Your task to perform on an android device: Search for razer huntsman on newegg, select the first entry, add it to the cart, then select checkout. Image 0: 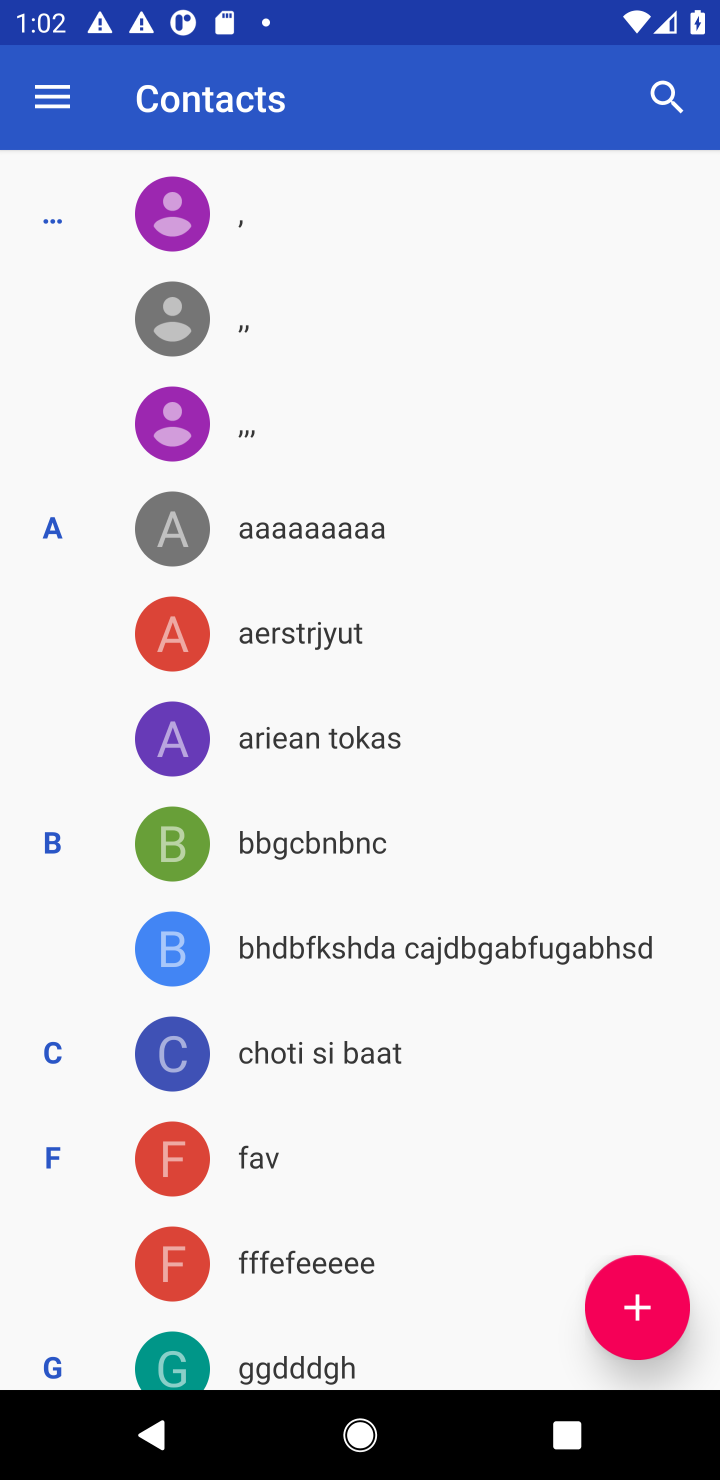
Step 0: press home button
Your task to perform on an android device: Search for razer huntsman on newegg, select the first entry, add it to the cart, then select checkout. Image 1: 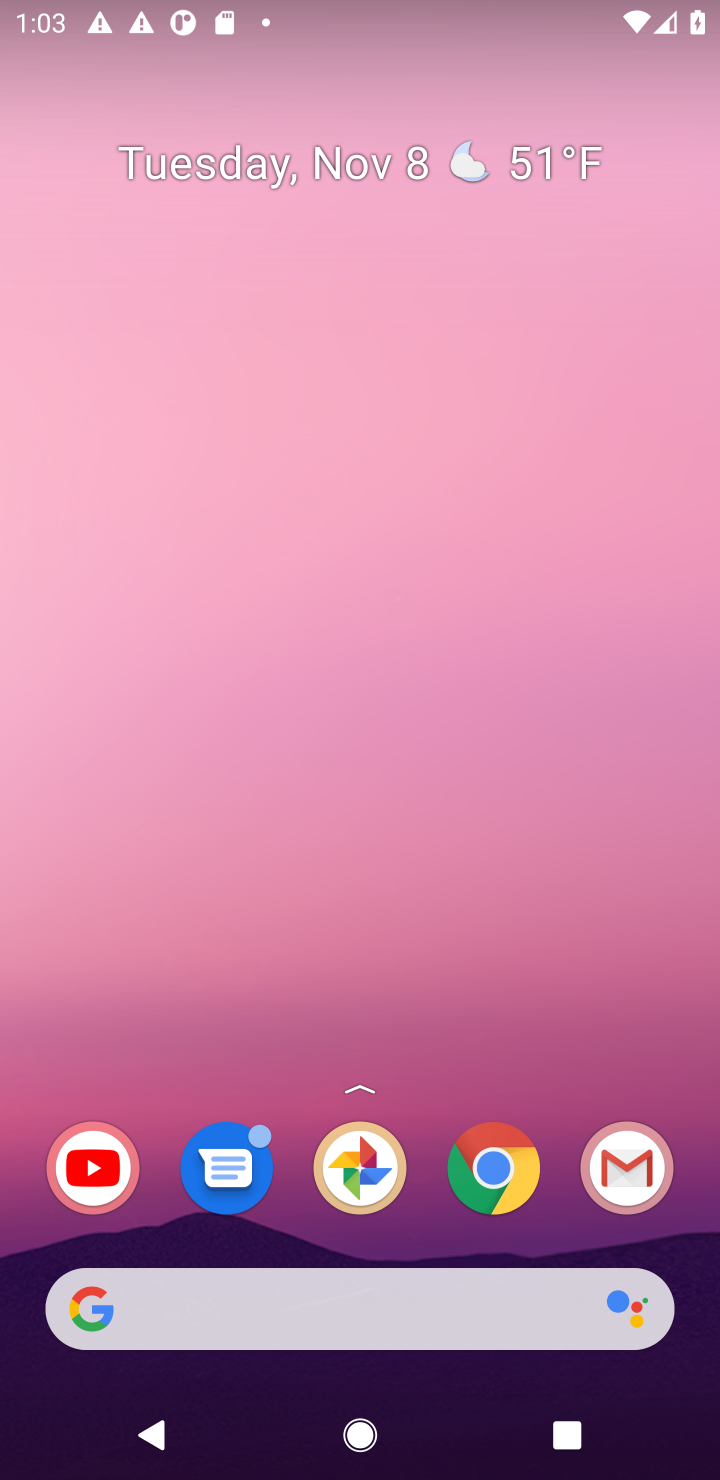
Step 1: drag from (407, 784) to (385, 148)
Your task to perform on an android device: Search for razer huntsman on newegg, select the first entry, add it to the cart, then select checkout. Image 2: 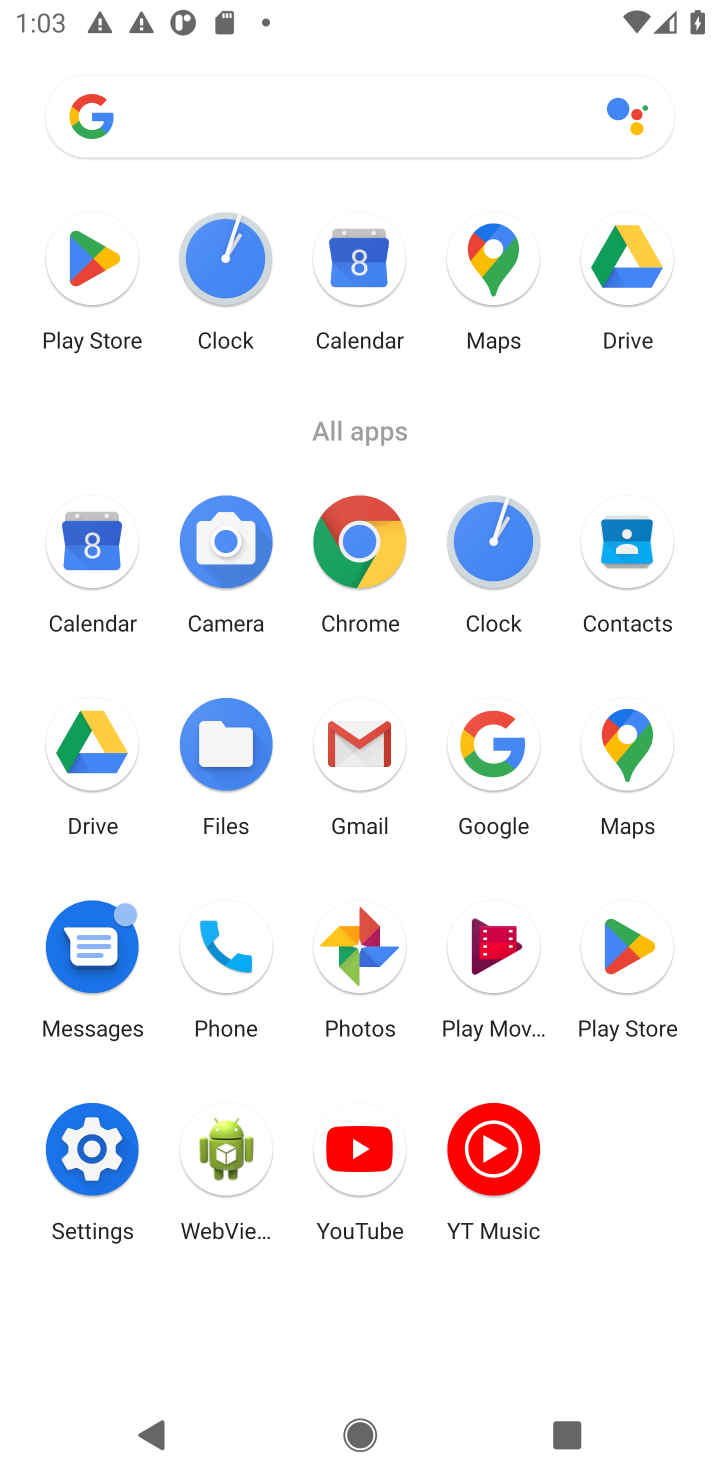
Step 2: click (375, 542)
Your task to perform on an android device: Search for razer huntsman on newegg, select the first entry, add it to the cart, then select checkout. Image 3: 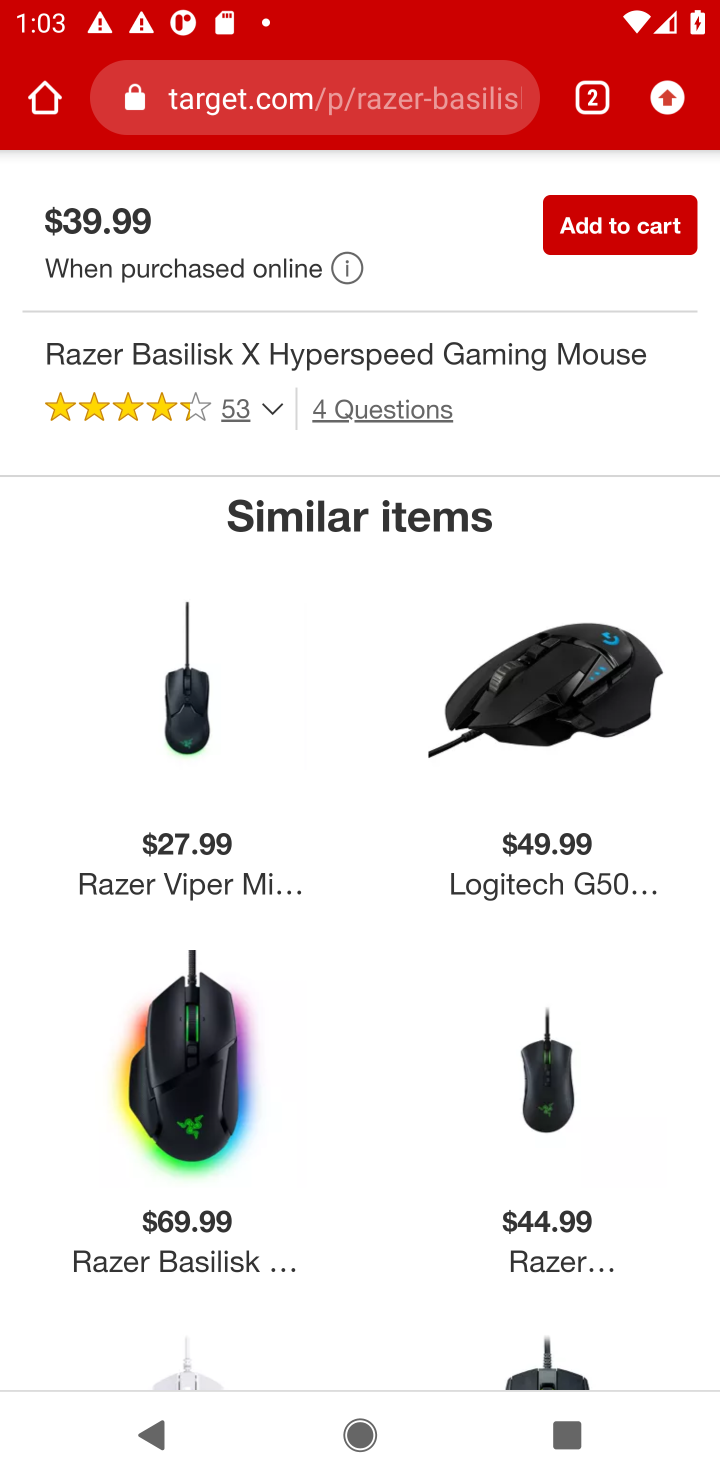
Step 3: click (310, 118)
Your task to perform on an android device: Search for razer huntsman on newegg, select the first entry, add it to the cart, then select checkout. Image 4: 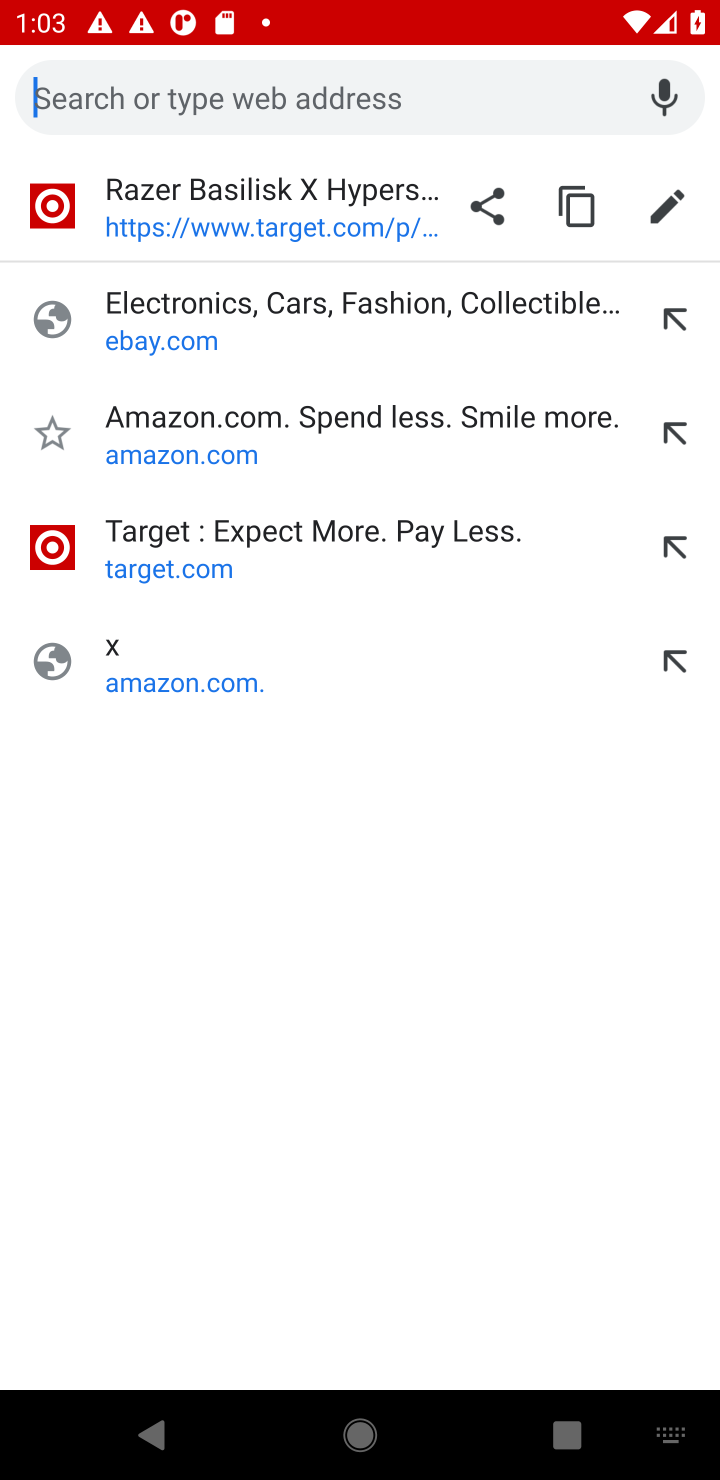
Step 4: type "newegg"
Your task to perform on an android device: Search for razer huntsman on newegg, select the first entry, add it to the cart, then select checkout. Image 5: 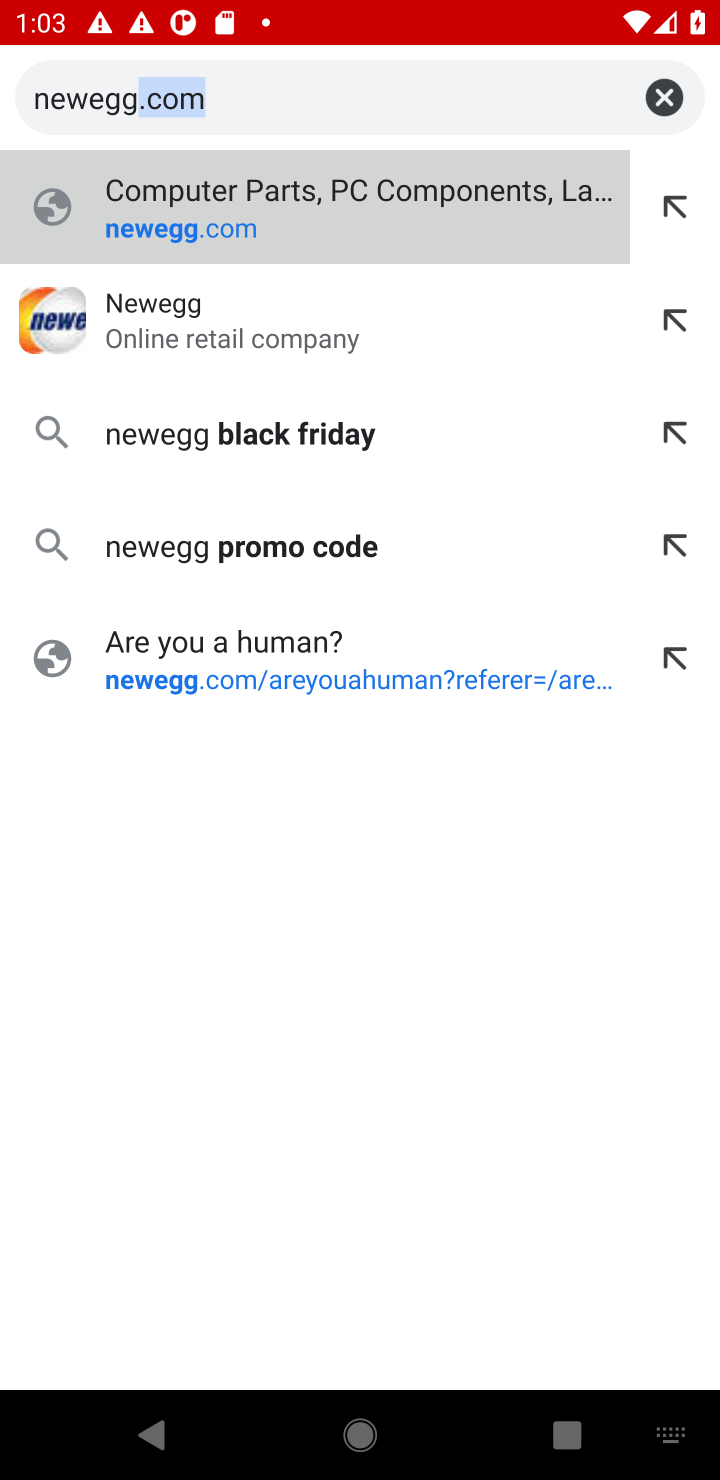
Step 5: press enter
Your task to perform on an android device: Search for razer huntsman on newegg, select the first entry, add it to the cart, then select checkout. Image 6: 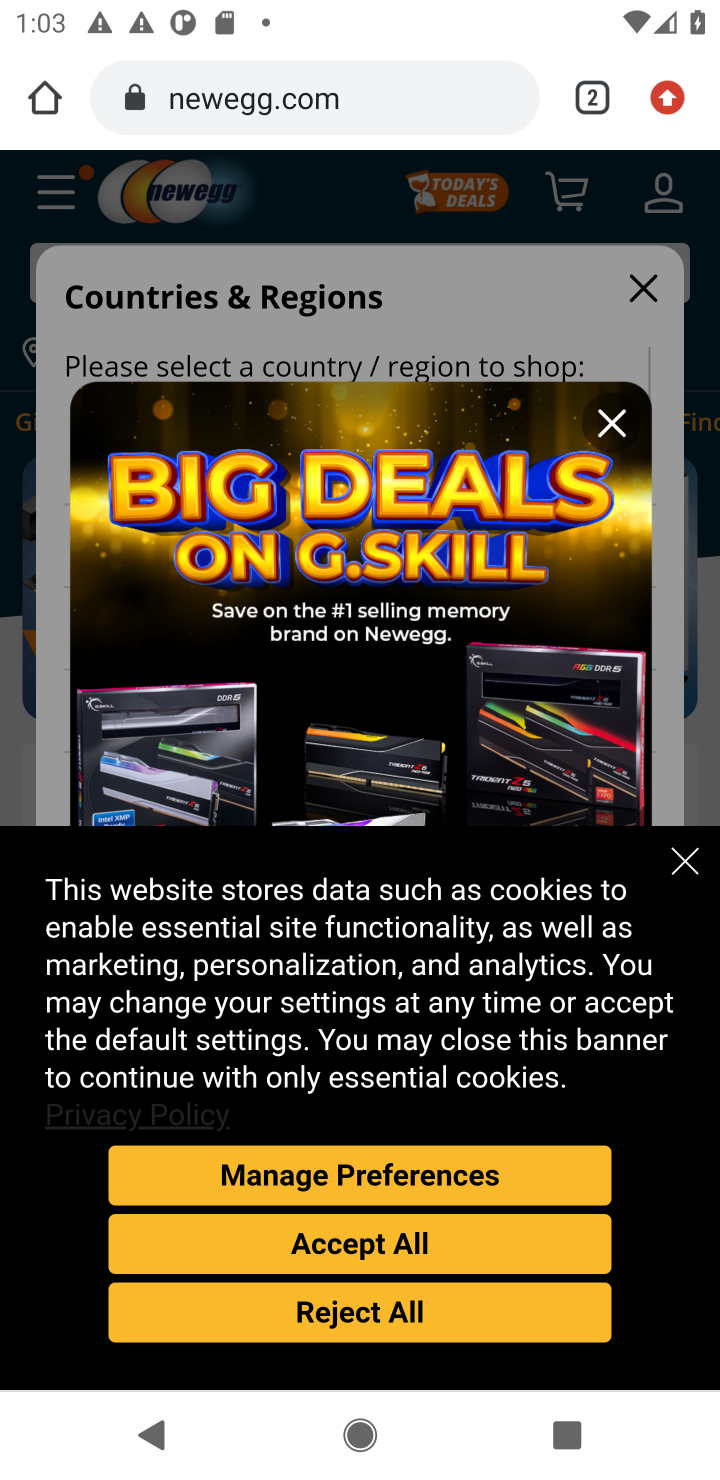
Step 6: click (693, 871)
Your task to perform on an android device: Search for razer huntsman on newegg, select the first entry, add it to the cart, then select checkout. Image 7: 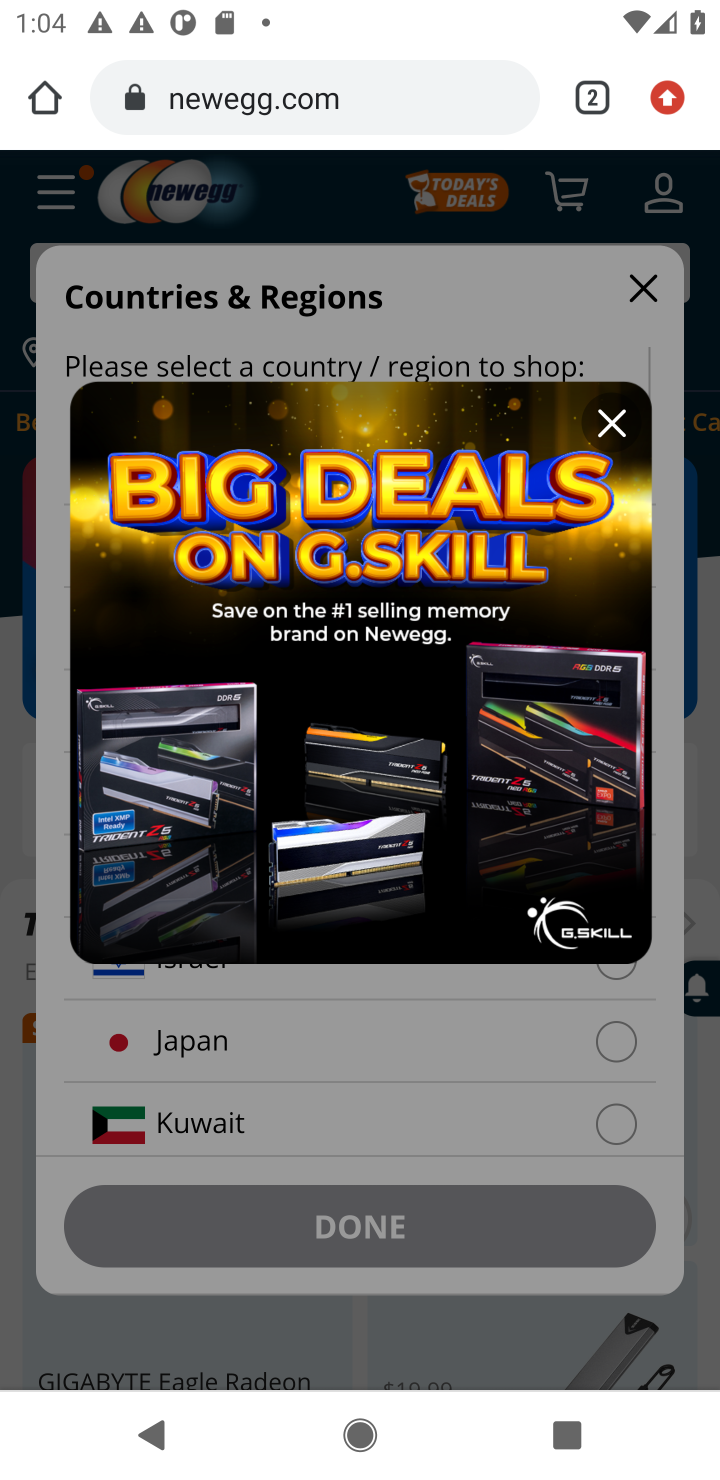
Step 7: click (589, 439)
Your task to perform on an android device: Search for razer huntsman on newegg, select the first entry, add it to the cart, then select checkout. Image 8: 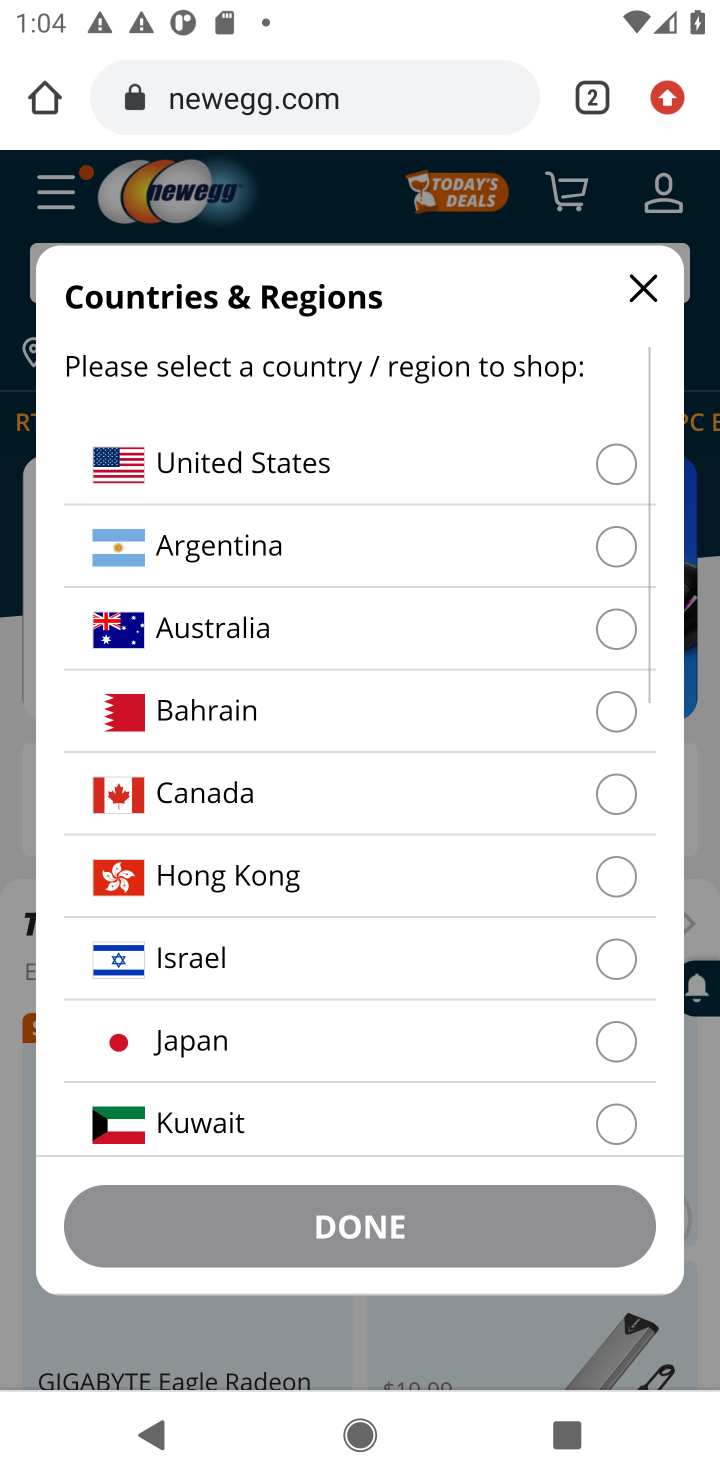
Step 8: click (408, 463)
Your task to perform on an android device: Search for razer huntsman on newegg, select the first entry, add it to the cart, then select checkout. Image 9: 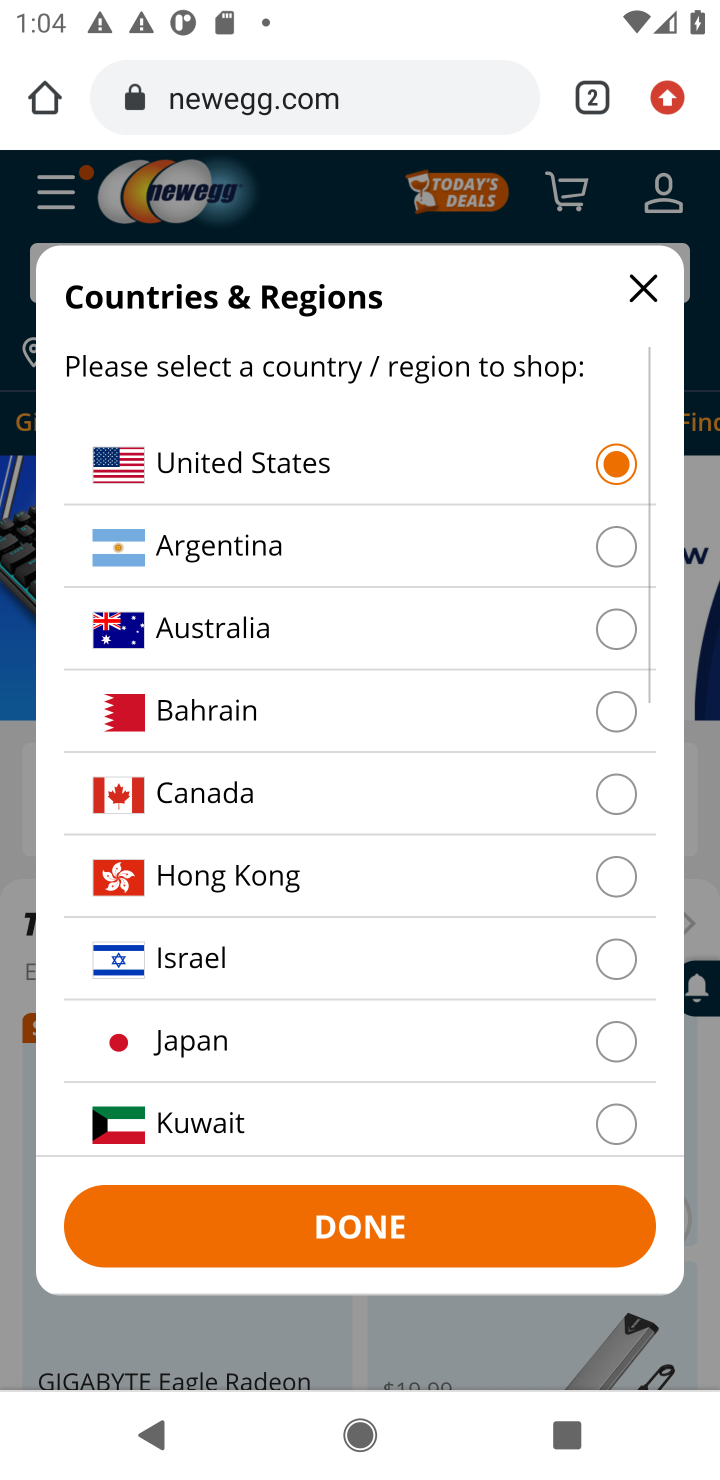
Step 9: click (377, 1230)
Your task to perform on an android device: Search for razer huntsman on newegg, select the first entry, add it to the cart, then select checkout. Image 10: 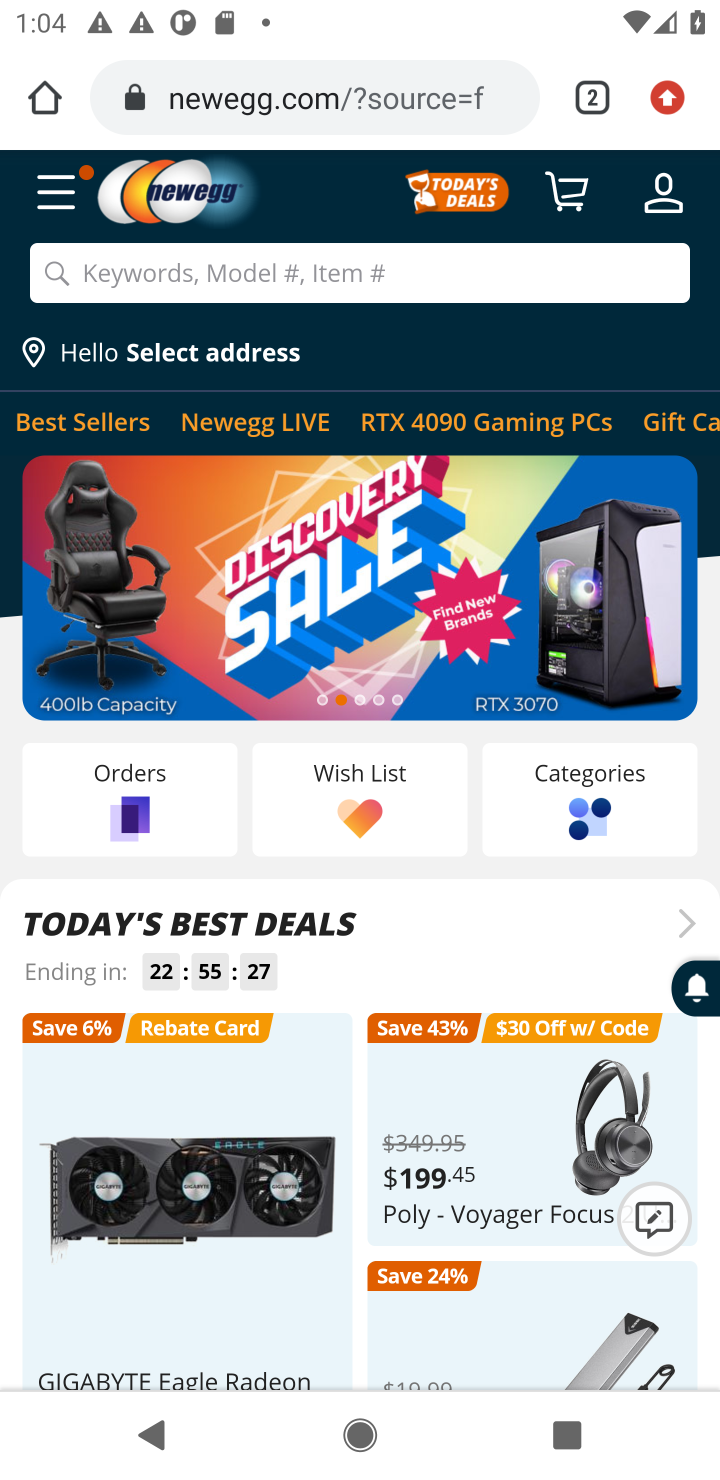
Step 10: click (341, 255)
Your task to perform on an android device: Search for razer huntsman on newegg, select the first entry, add it to the cart, then select checkout. Image 11: 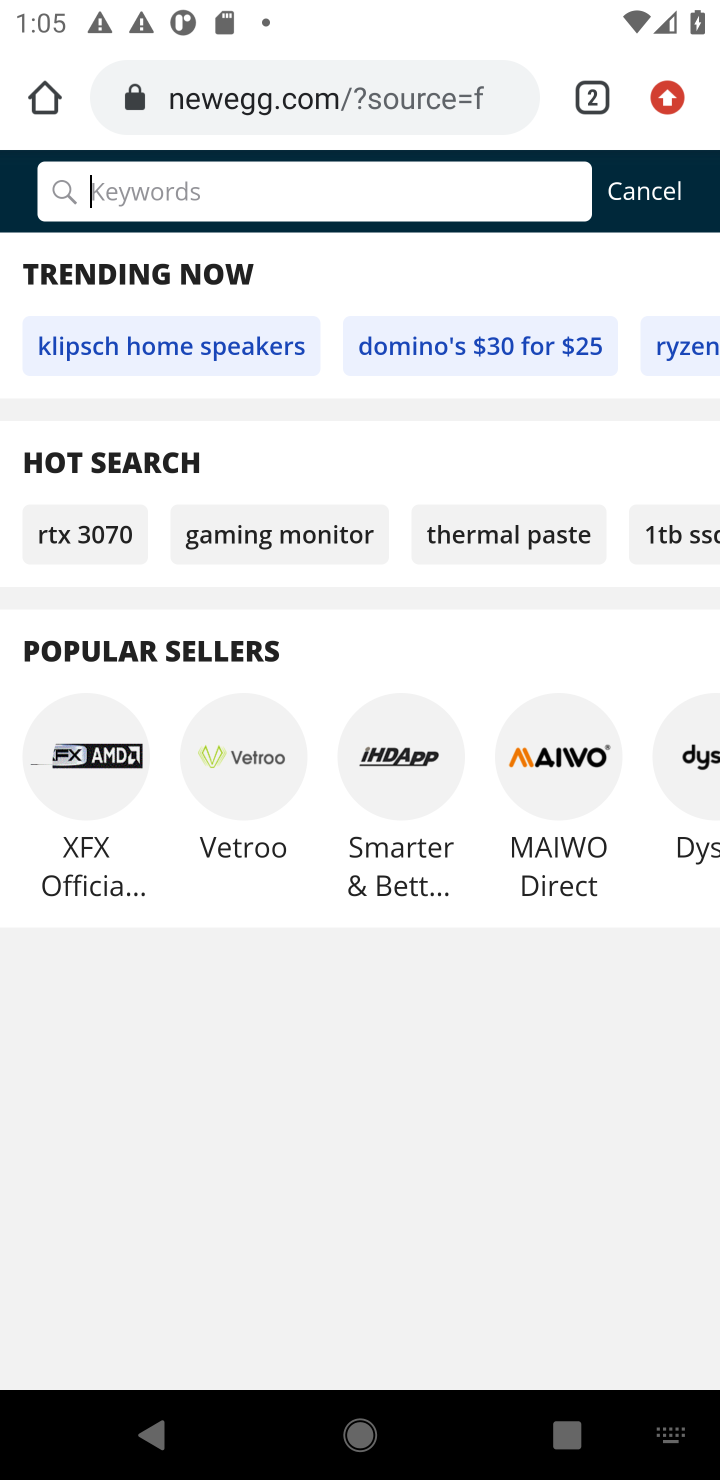
Step 11: type " razer huntsman"
Your task to perform on an android device: Search for razer huntsman on newegg, select the first entry, add it to the cart, then select checkout. Image 12: 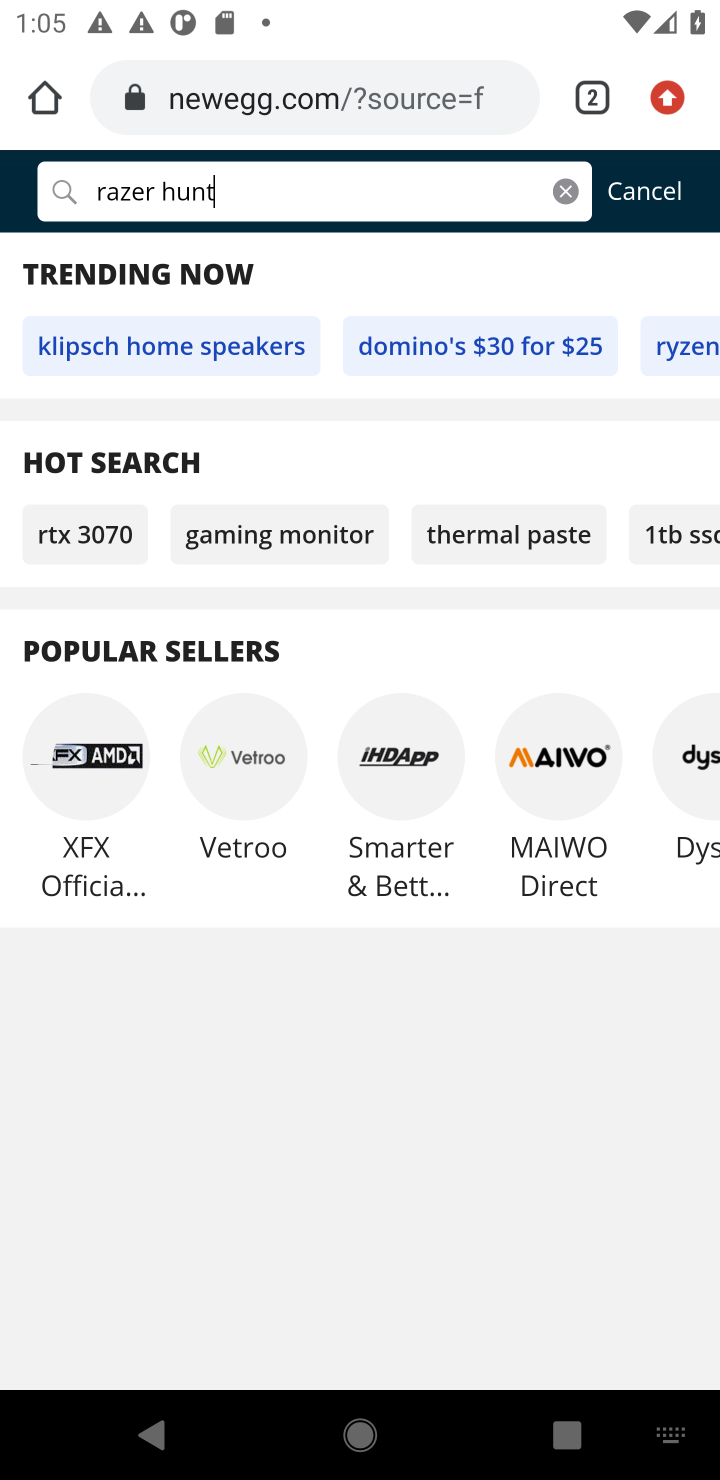
Step 12: press enter
Your task to perform on an android device: Search for razer huntsman on newegg, select the first entry, add it to the cart, then select checkout. Image 13: 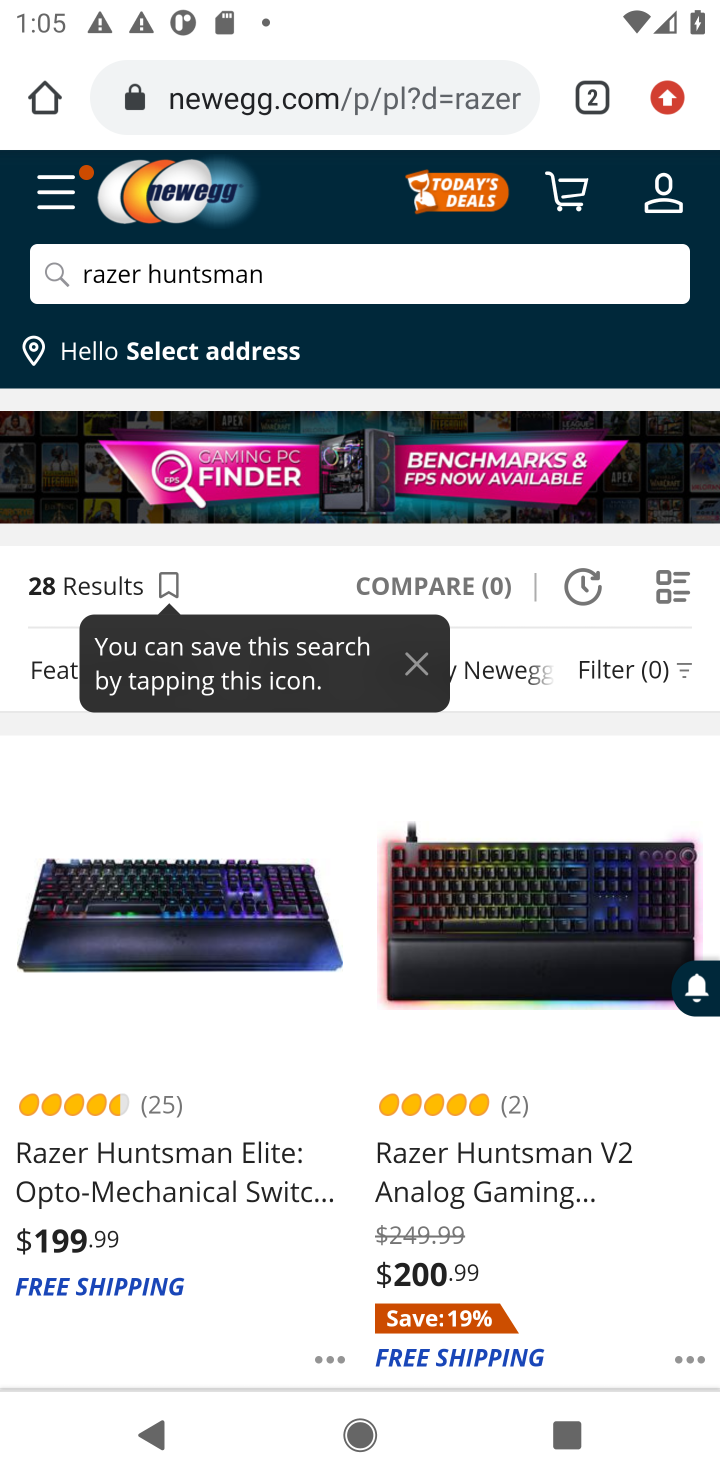
Step 13: click (196, 921)
Your task to perform on an android device: Search for razer huntsman on newegg, select the first entry, add it to the cart, then select checkout. Image 14: 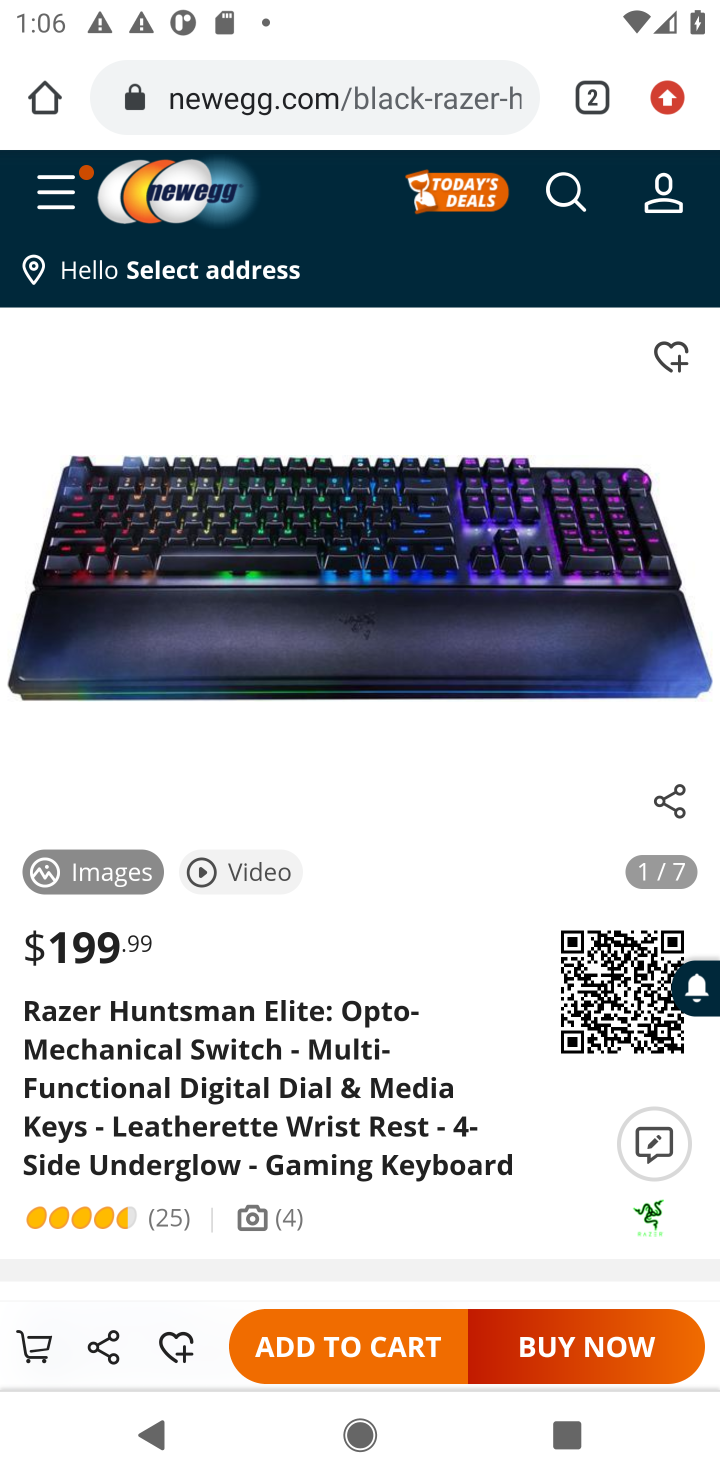
Step 14: click (404, 1350)
Your task to perform on an android device: Search for razer huntsman on newegg, select the first entry, add it to the cart, then select checkout. Image 15: 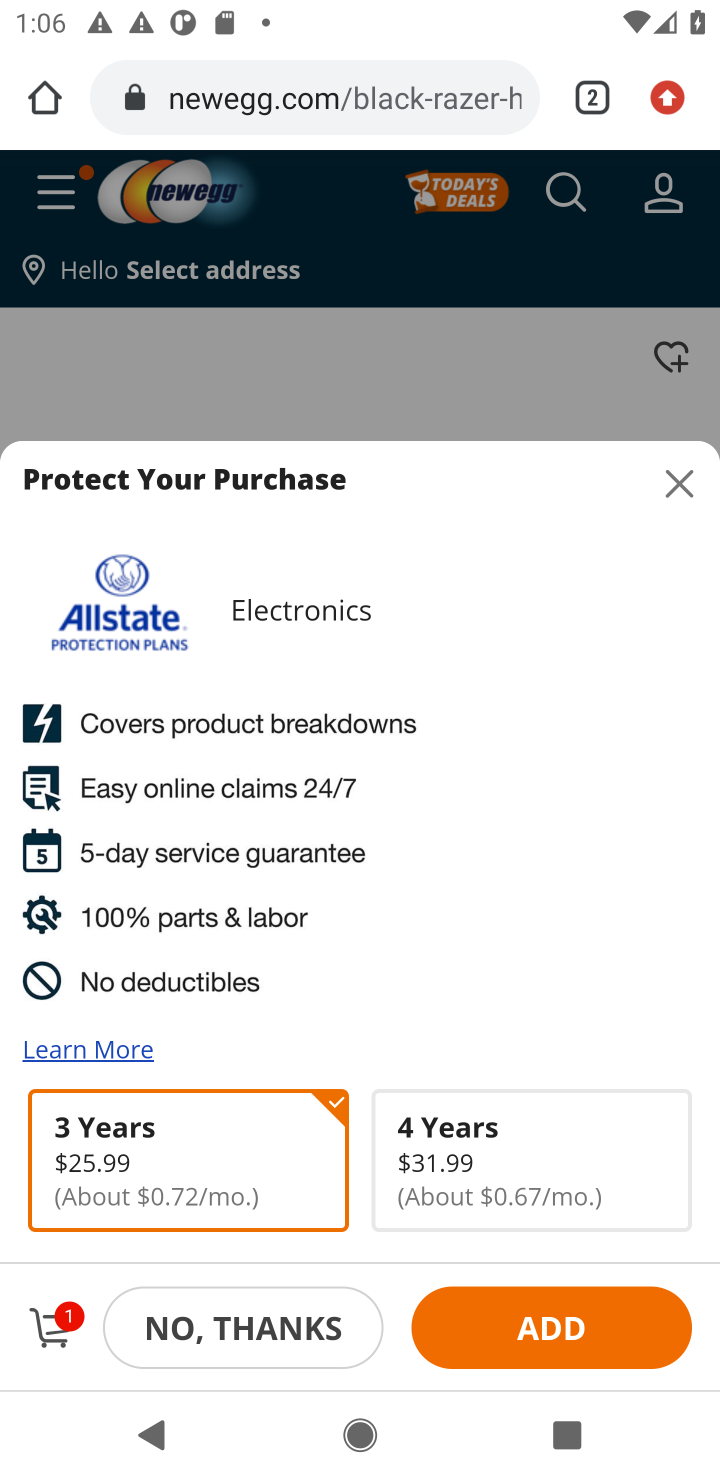
Step 15: click (542, 1330)
Your task to perform on an android device: Search for razer huntsman on newegg, select the first entry, add it to the cart, then select checkout. Image 16: 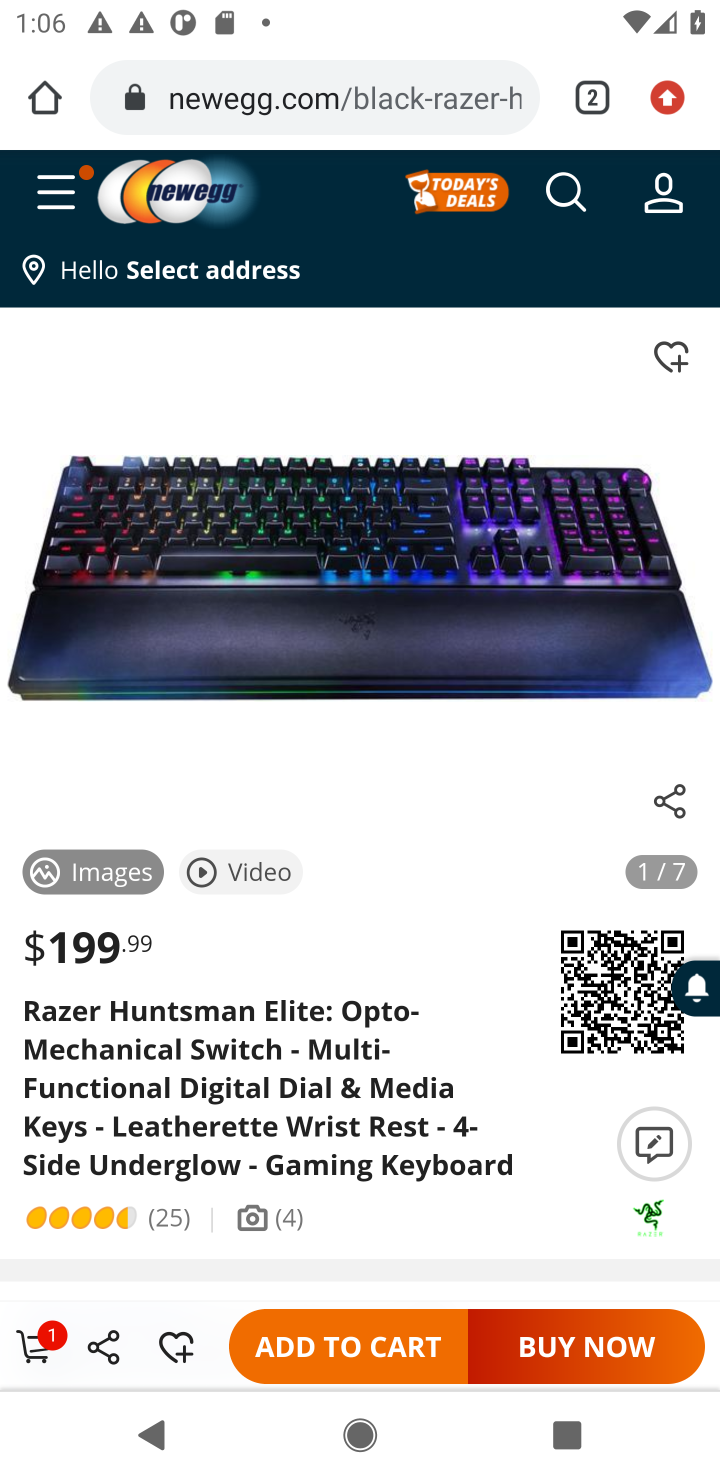
Step 16: click (371, 1355)
Your task to perform on an android device: Search for razer huntsman on newegg, select the first entry, add it to the cart, then select checkout. Image 17: 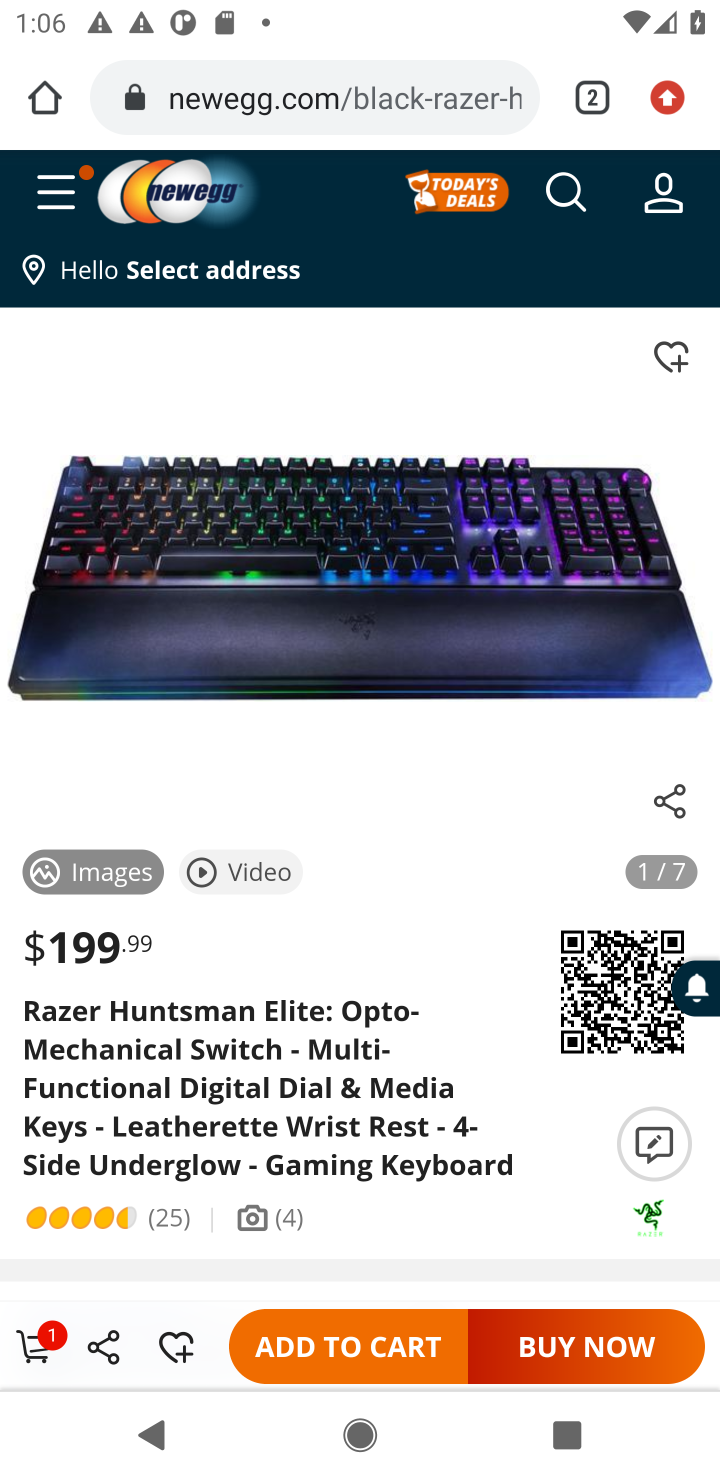
Step 17: click (369, 1343)
Your task to perform on an android device: Search for razer huntsman on newegg, select the first entry, add it to the cart, then select checkout. Image 18: 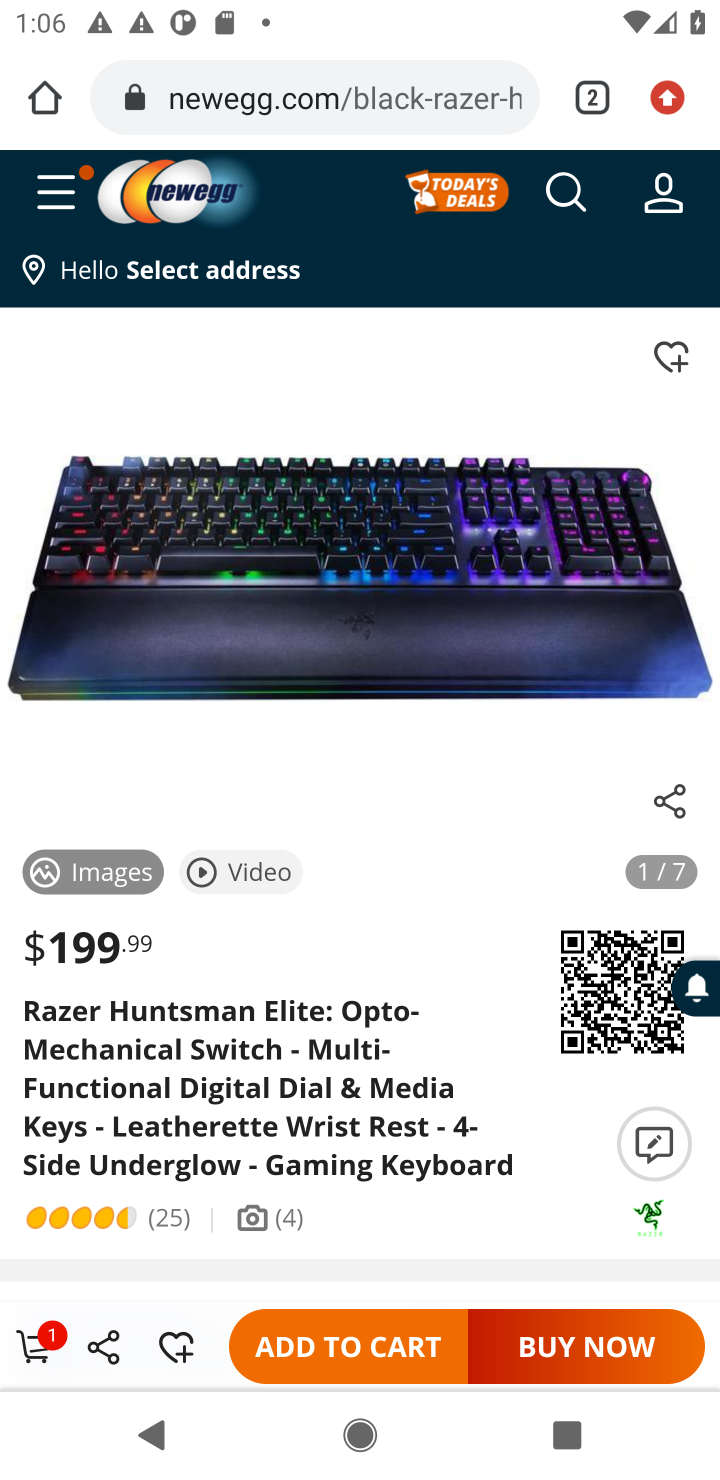
Step 18: drag from (395, 1022) to (440, 616)
Your task to perform on an android device: Search for razer huntsman on newegg, select the first entry, add it to the cart, then select checkout. Image 19: 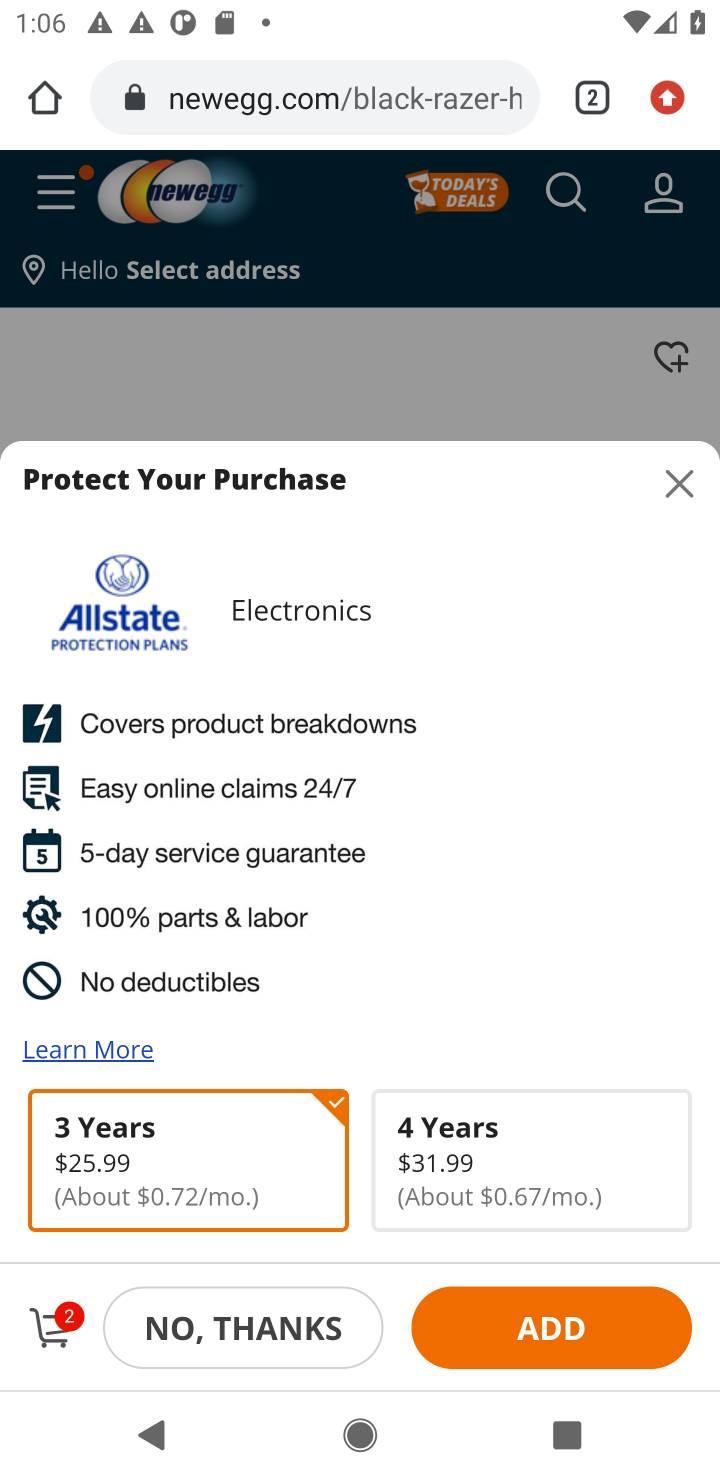
Step 19: click (69, 1325)
Your task to perform on an android device: Search for razer huntsman on newegg, select the first entry, add it to the cart, then select checkout. Image 20: 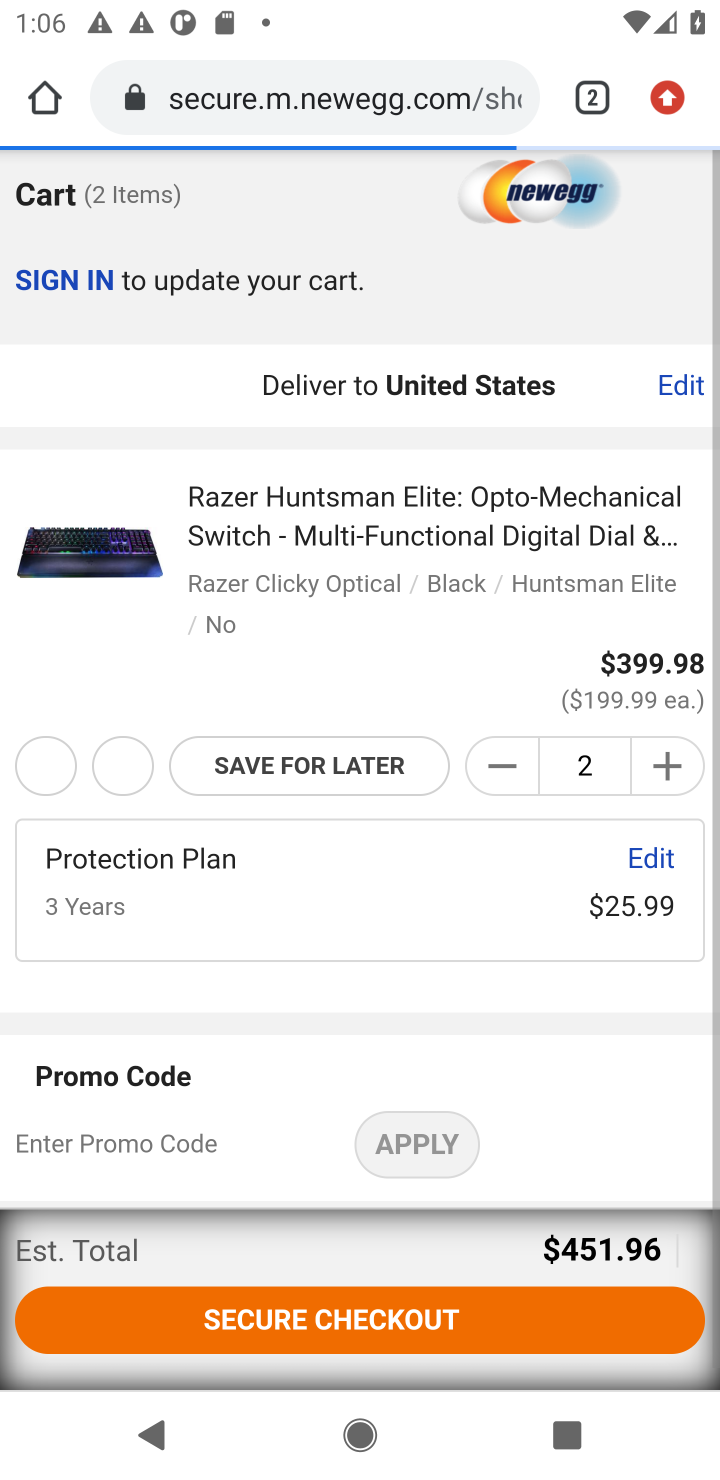
Step 20: click (245, 1331)
Your task to perform on an android device: Search for razer huntsman on newegg, select the first entry, add it to the cart, then select checkout. Image 21: 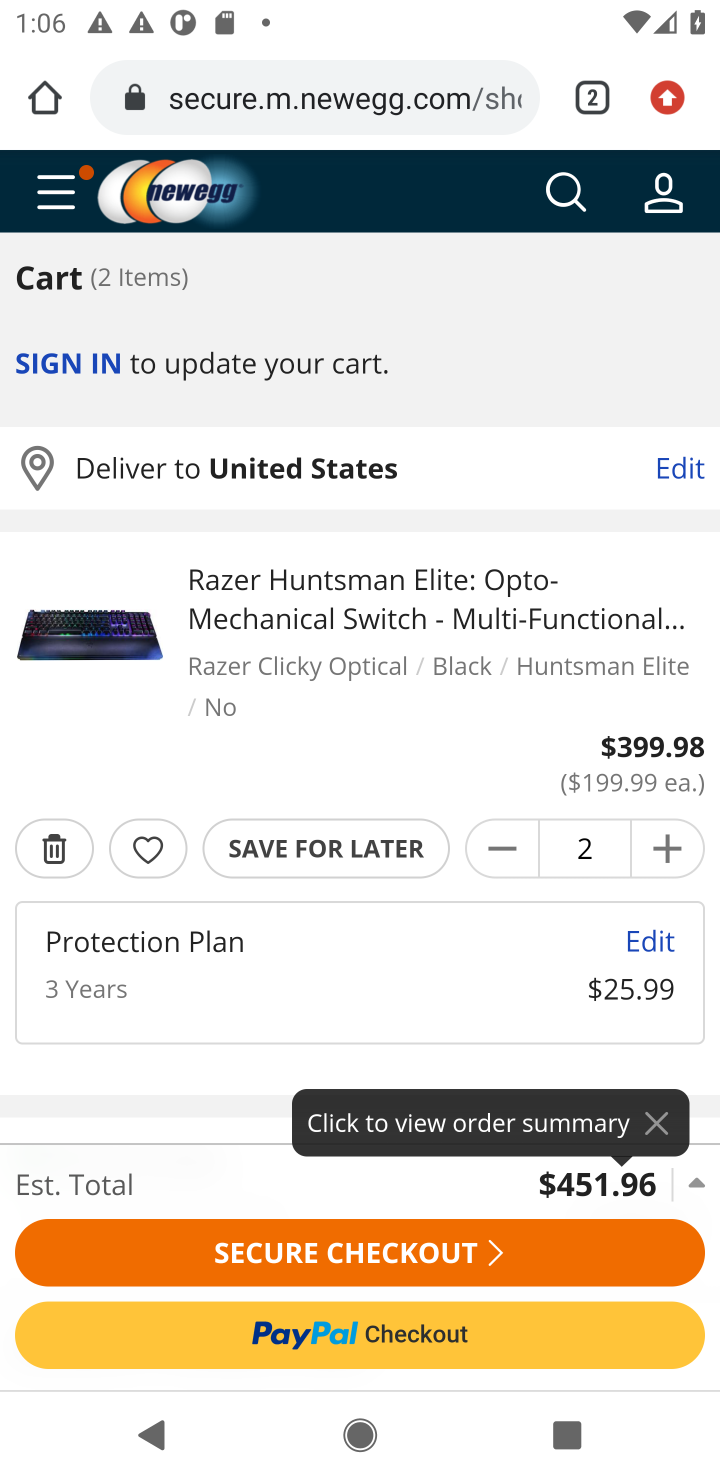
Step 21: task complete